Your task to perform on an android device: change the clock style Image 0: 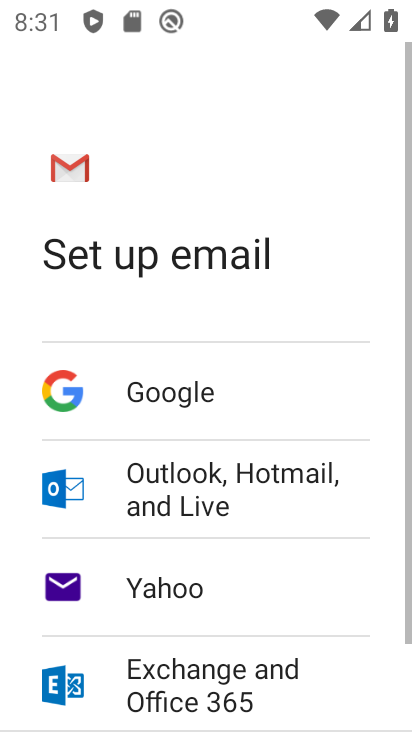
Step 0: press home button
Your task to perform on an android device: change the clock style Image 1: 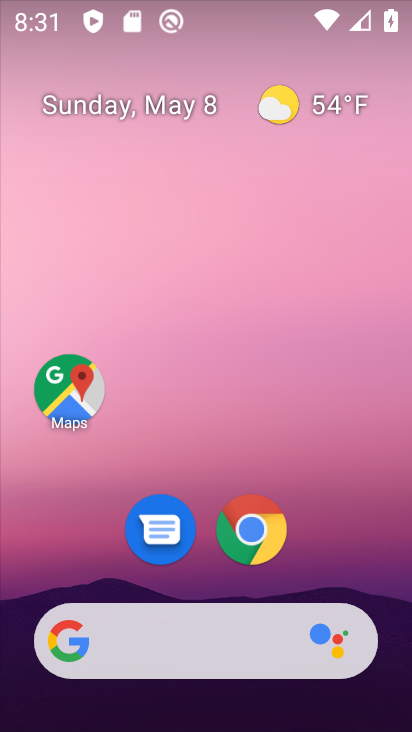
Step 1: drag from (374, 556) to (342, 161)
Your task to perform on an android device: change the clock style Image 2: 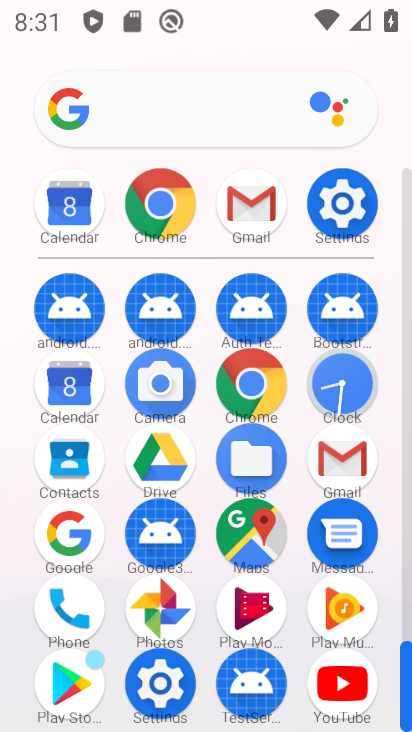
Step 2: click (353, 393)
Your task to perform on an android device: change the clock style Image 3: 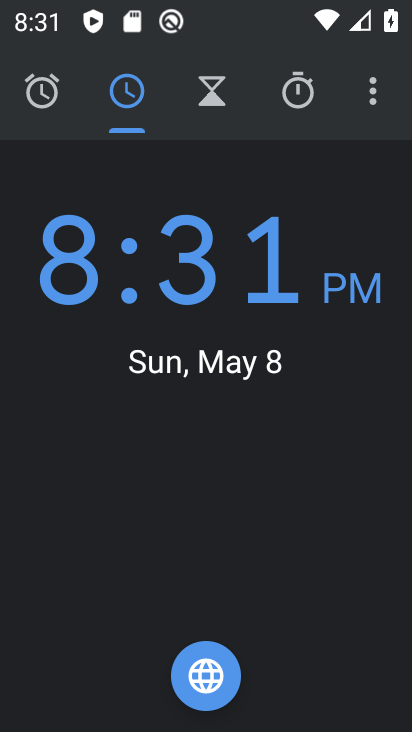
Step 3: click (376, 105)
Your task to perform on an android device: change the clock style Image 4: 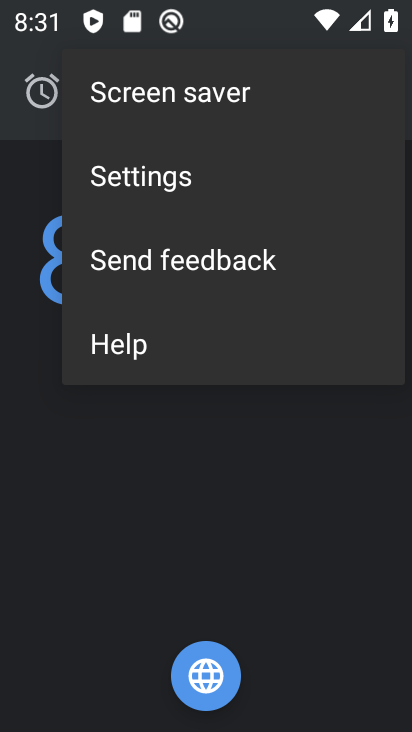
Step 4: click (124, 170)
Your task to perform on an android device: change the clock style Image 5: 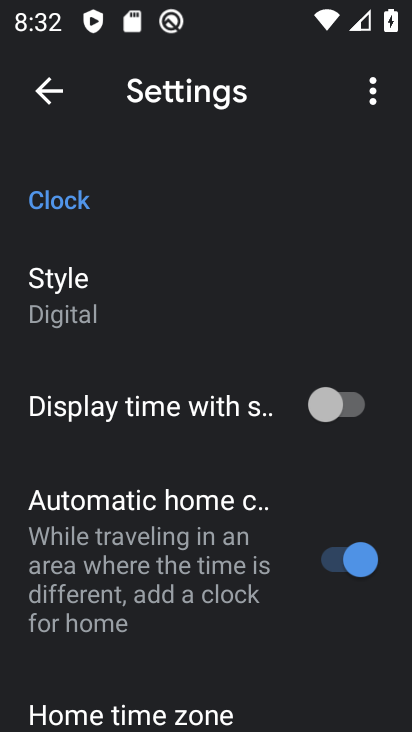
Step 5: click (106, 307)
Your task to perform on an android device: change the clock style Image 6: 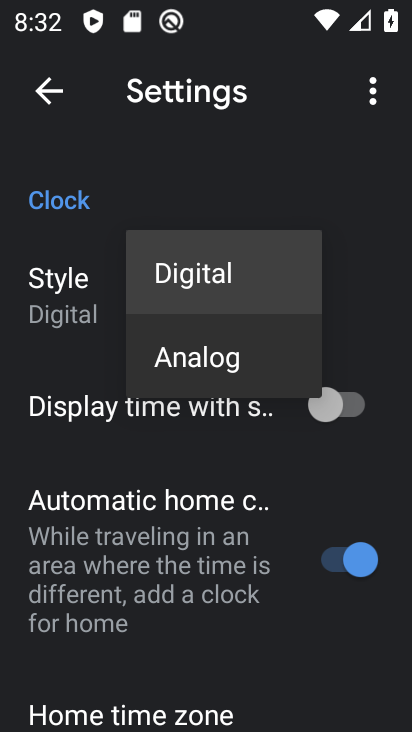
Step 6: click (188, 363)
Your task to perform on an android device: change the clock style Image 7: 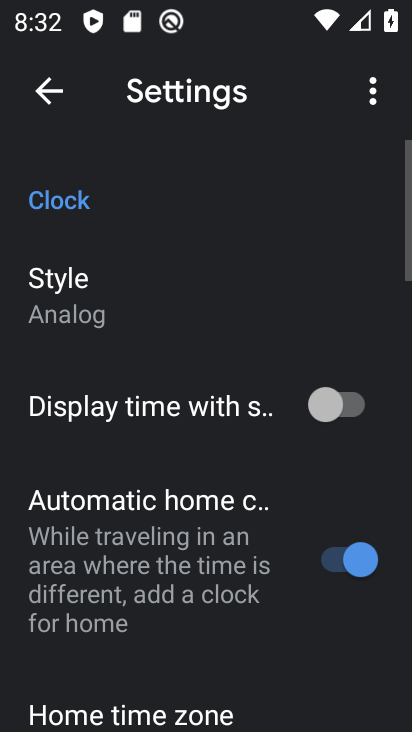
Step 7: task complete